Your task to perform on an android device: Go to ESPN.com Image 0: 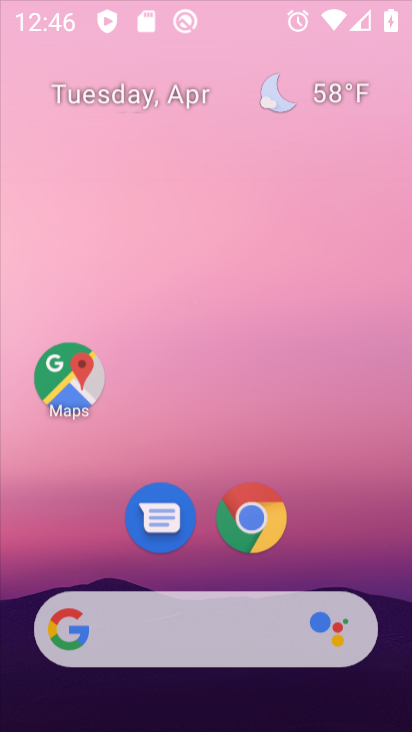
Step 0: click (266, 74)
Your task to perform on an android device: Go to ESPN.com Image 1: 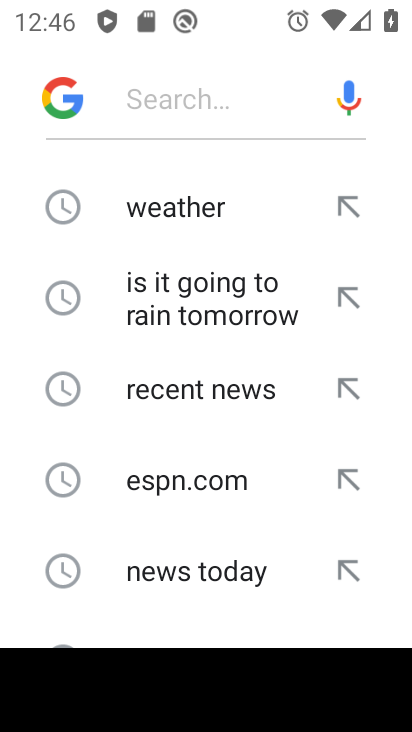
Step 1: press home button
Your task to perform on an android device: Go to ESPN.com Image 2: 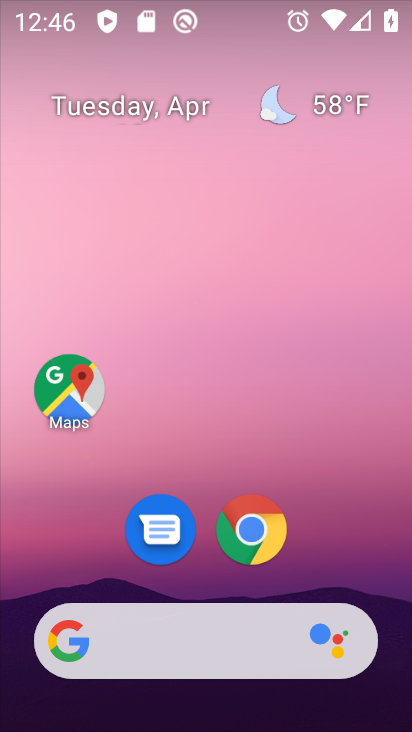
Step 2: click (237, 534)
Your task to perform on an android device: Go to ESPN.com Image 3: 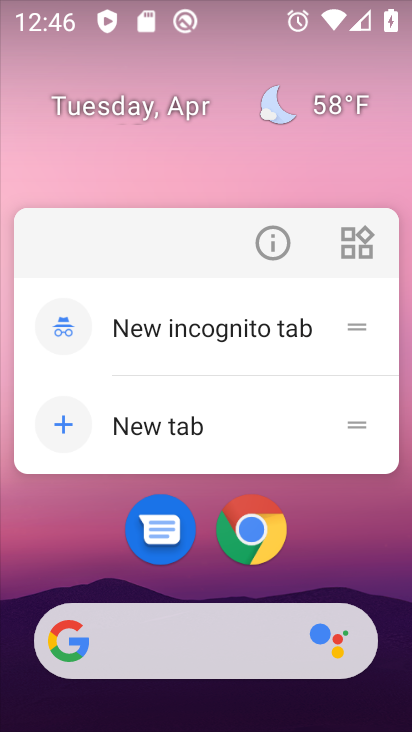
Step 3: click (242, 534)
Your task to perform on an android device: Go to ESPN.com Image 4: 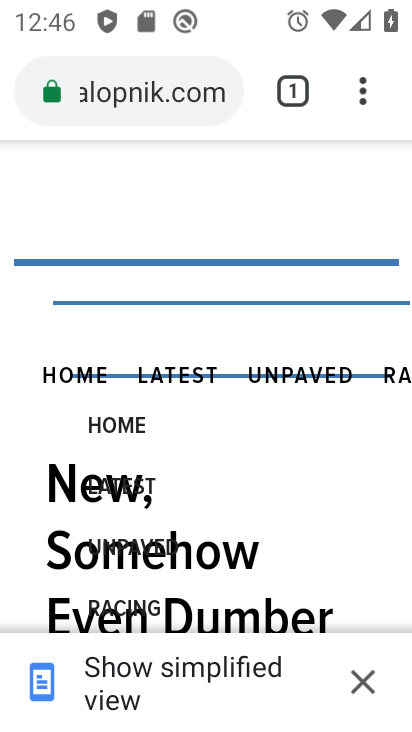
Step 4: press back button
Your task to perform on an android device: Go to ESPN.com Image 5: 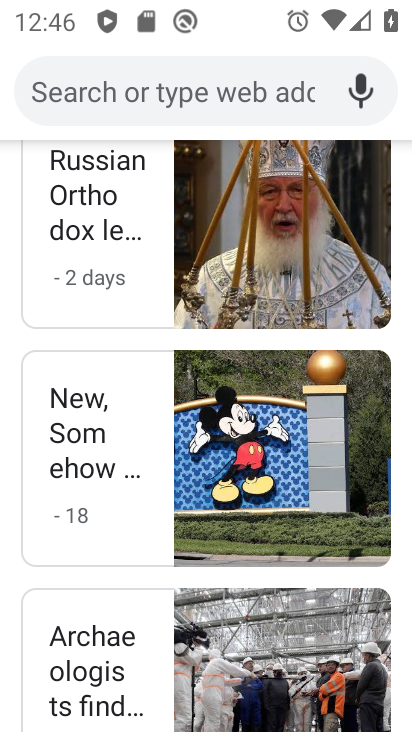
Step 5: drag from (164, 170) to (133, 664)
Your task to perform on an android device: Go to ESPN.com Image 6: 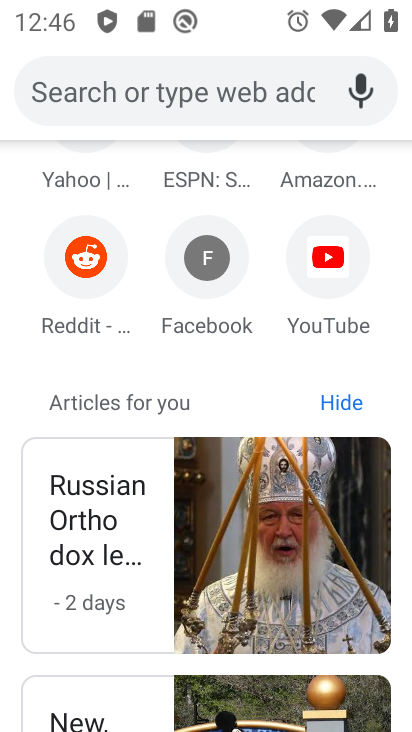
Step 6: drag from (157, 344) to (196, 620)
Your task to perform on an android device: Go to ESPN.com Image 7: 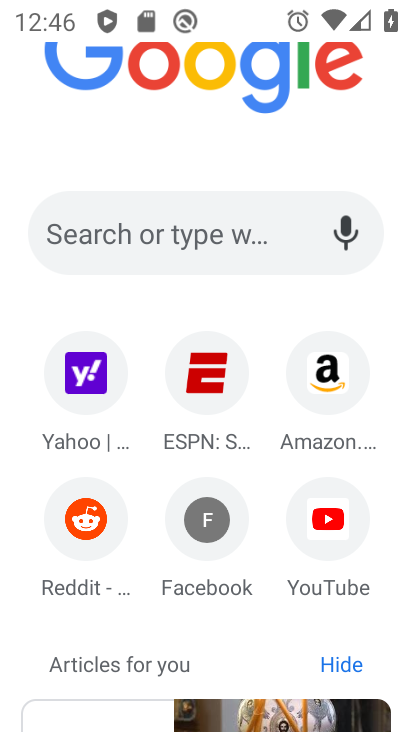
Step 7: click (214, 386)
Your task to perform on an android device: Go to ESPN.com Image 8: 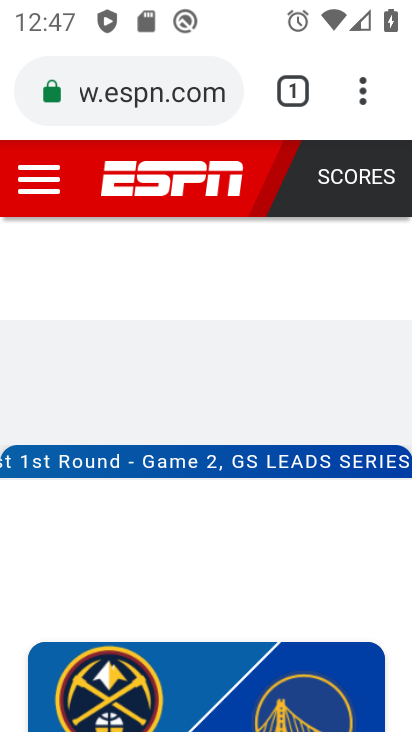
Step 8: task complete